Your task to perform on an android device: add a contact in the contacts app Image 0: 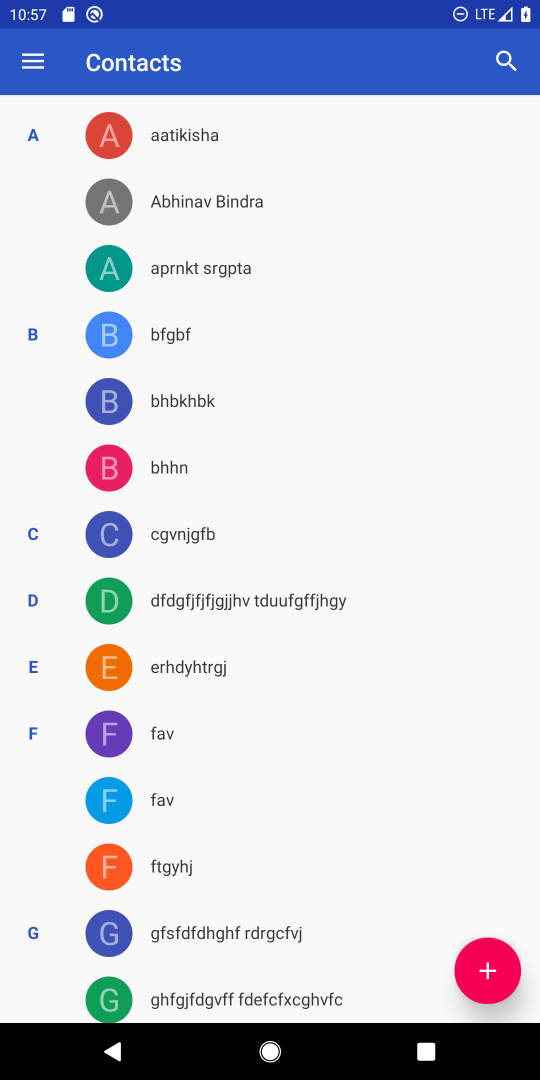
Step 0: drag from (242, 254) to (229, 805)
Your task to perform on an android device: add a contact in the contacts app Image 1: 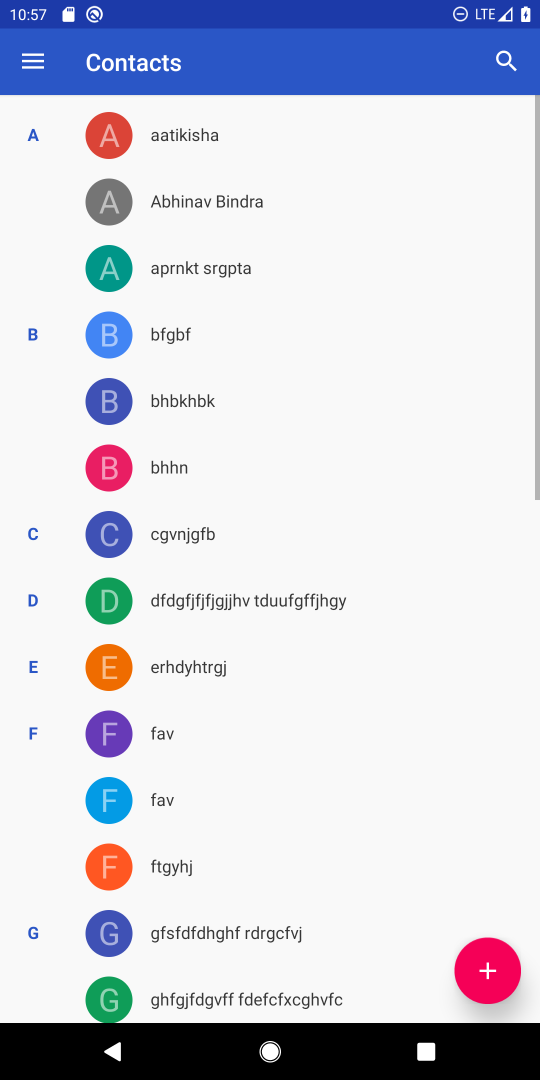
Step 1: click (0, 53)
Your task to perform on an android device: add a contact in the contacts app Image 2: 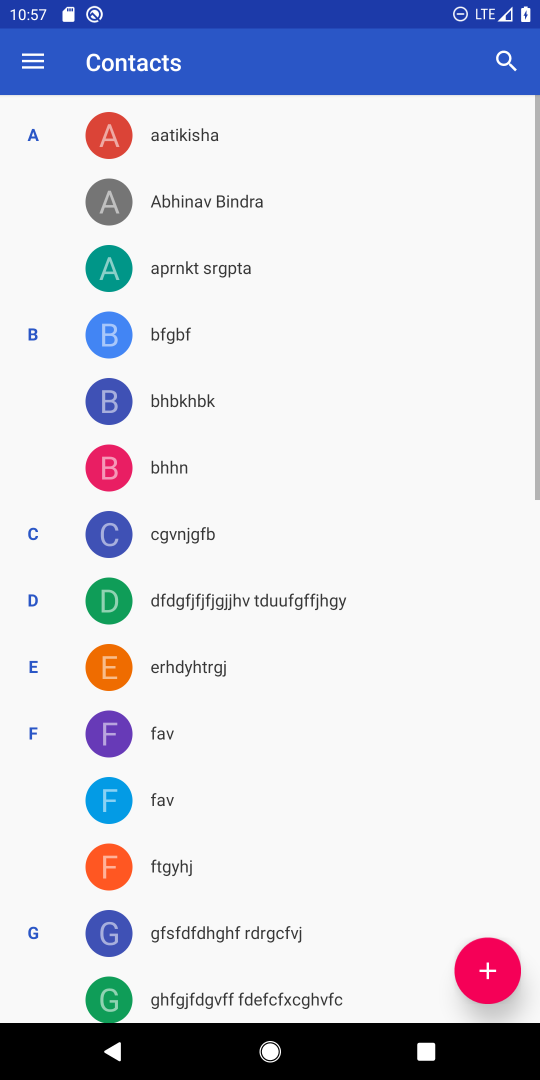
Step 2: click (23, 55)
Your task to perform on an android device: add a contact in the contacts app Image 3: 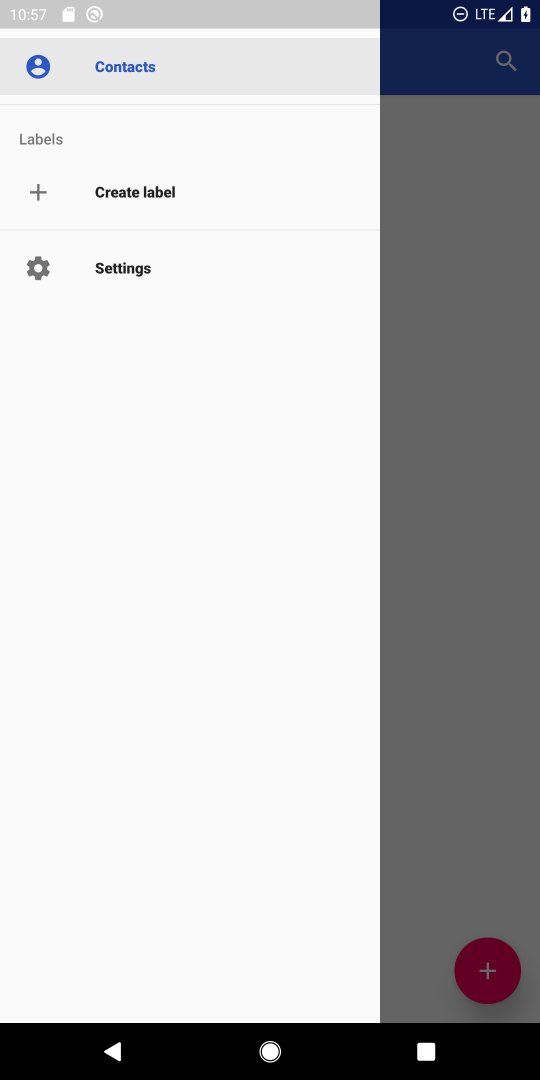
Step 3: click (466, 319)
Your task to perform on an android device: add a contact in the contacts app Image 4: 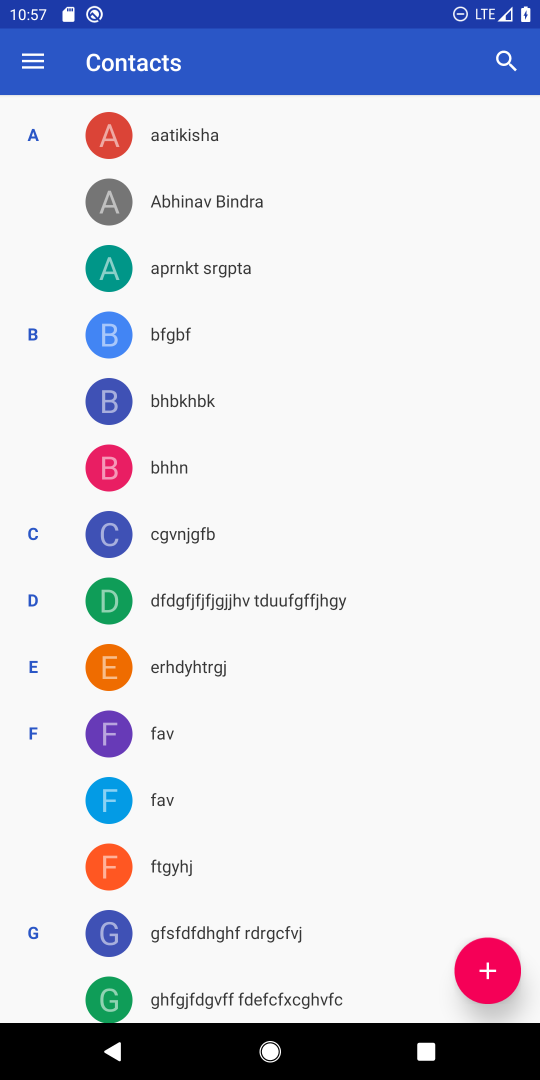
Step 4: click (471, 948)
Your task to perform on an android device: add a contact in the contacts app Image 5: 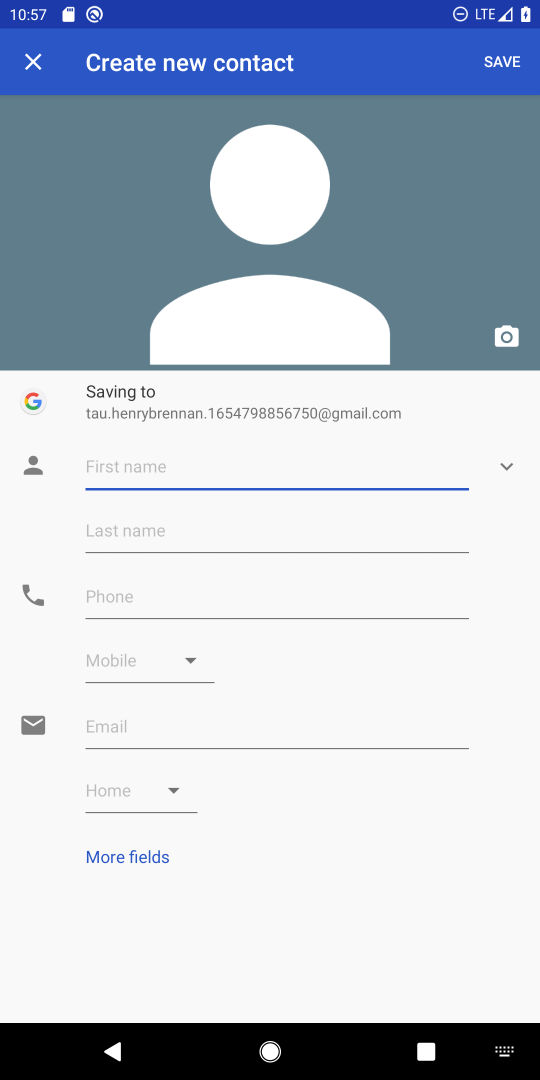
Step 5: click (263, 474)
Your task to perform on an android device: add a contact in the contacts app Image 6: 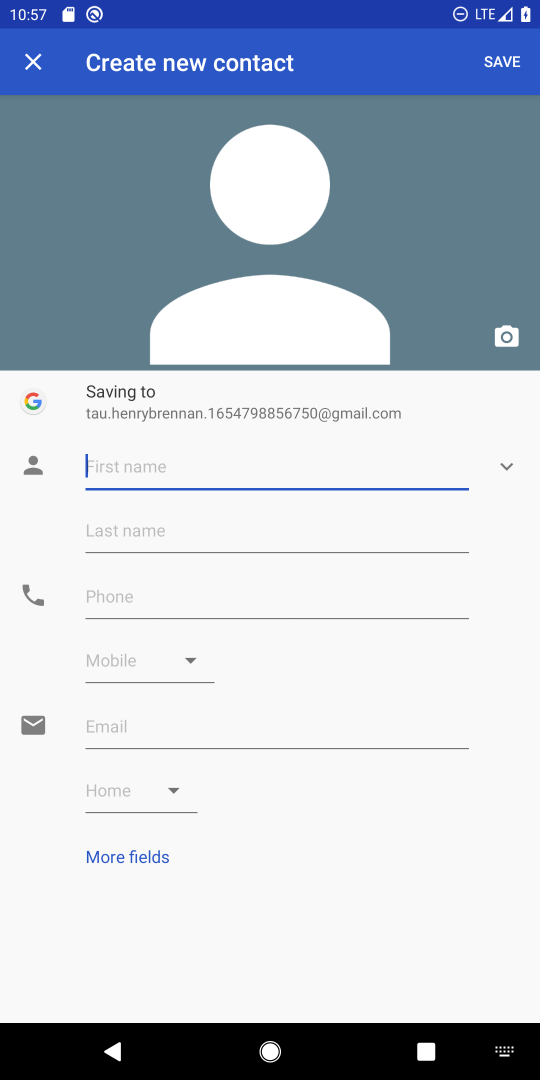
Step 6: type "kjkjkjkjjk"
Your task to perform on an android device: add a contact in the contacts app Image 7: 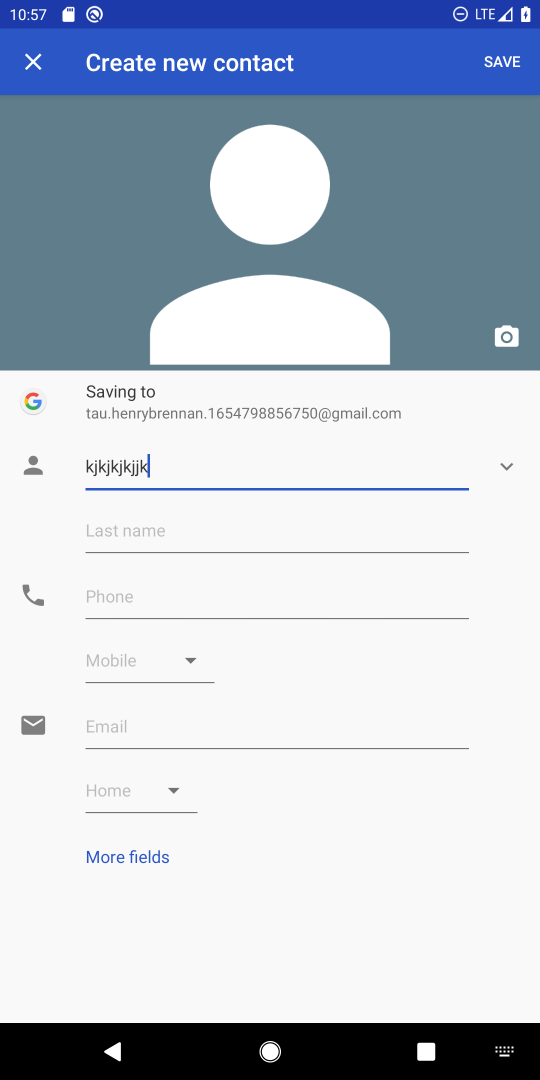
Step 7: click (170, 588)
Your task to perform on an android device: add a contact in the contacts app Image 8: 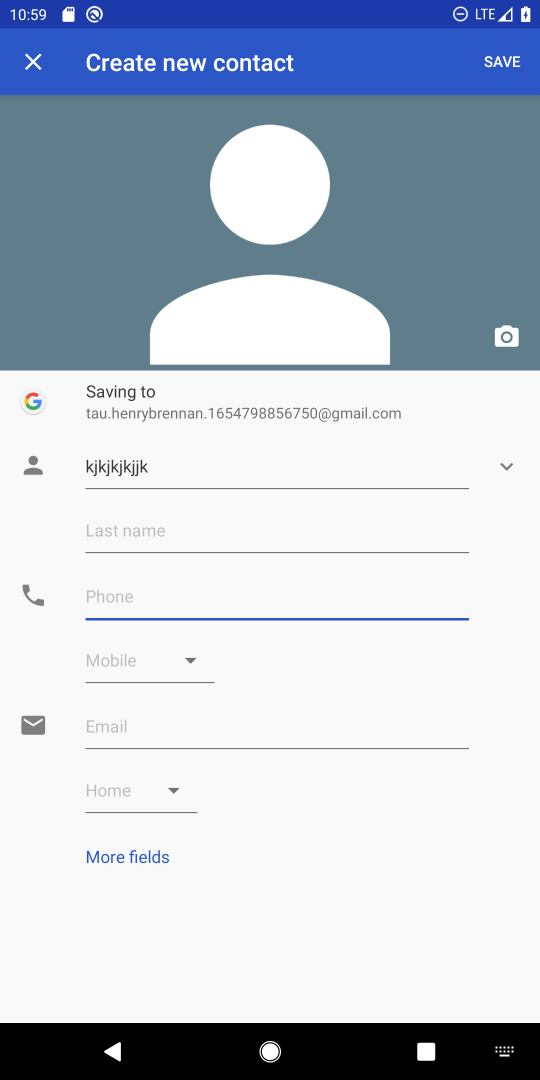
Step 8: type "878787878788"
Your task to perform on an android device: add a contact in the contacts app Image 9: 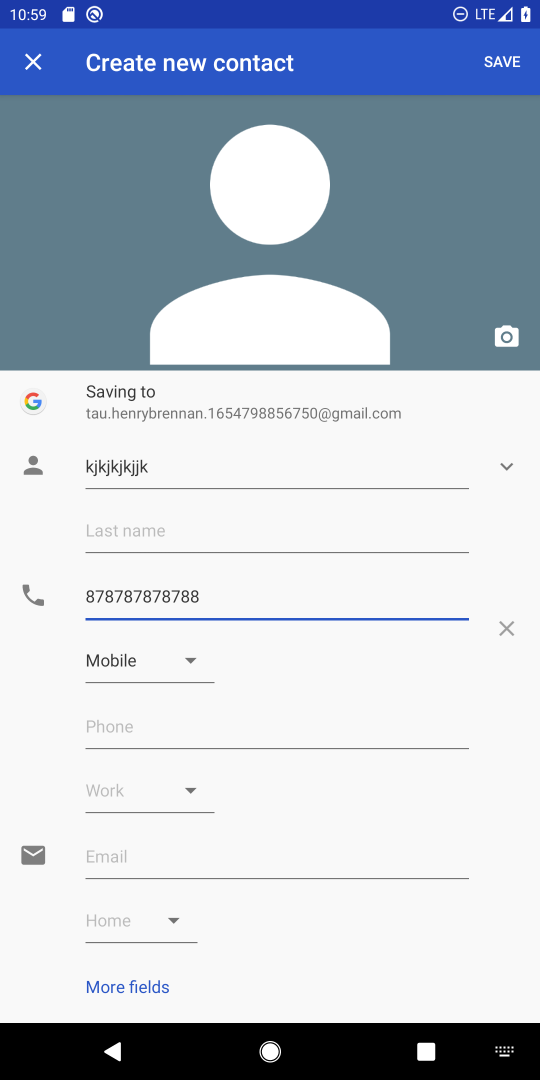
Step 9: click (510, 59)
Your task to perform on an android device: add a contact in the contacts app Image 10: 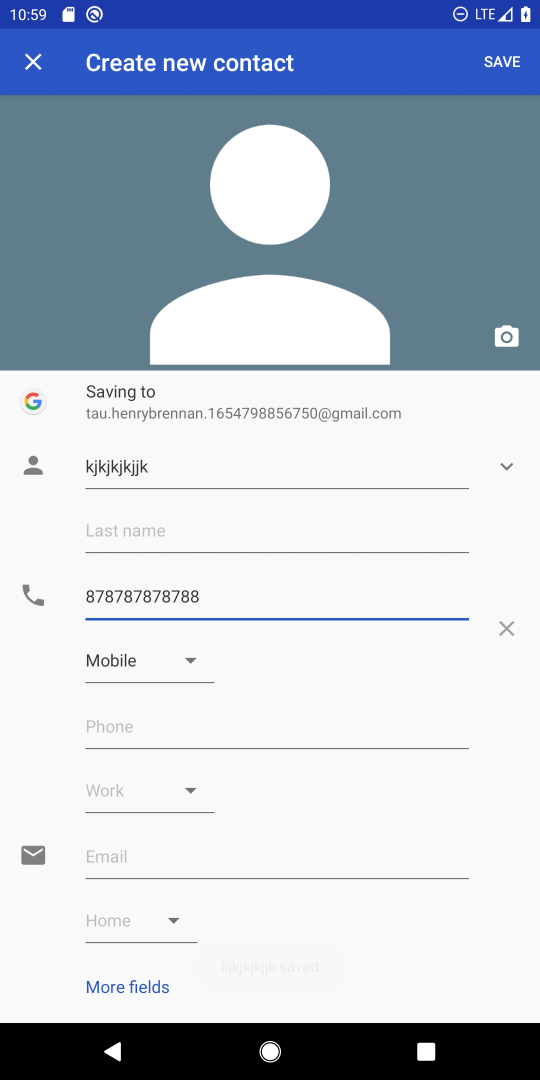
Step 10: task complete